Your task to perform on an android device: check battery use Image 0: 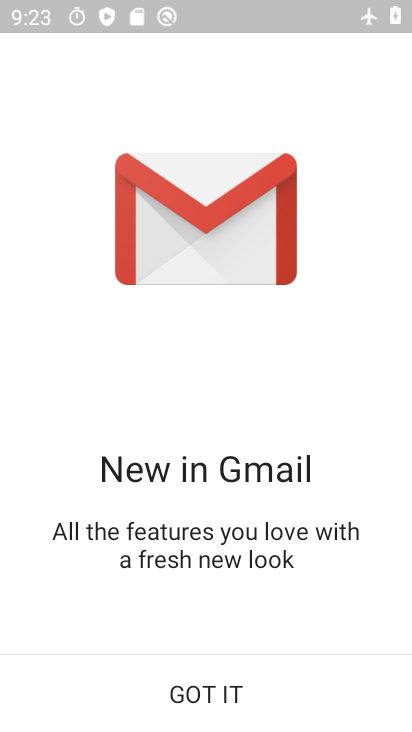
Step 0: press home button
Your task to perform on an android device: check battery use Image 1: 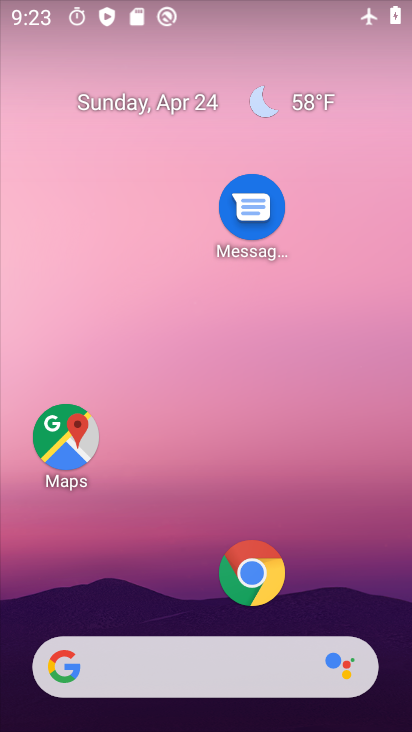
Step 1: drag from (155, 597) to (315, 10)
Your task to perform on an android device: check battery use Image 2: 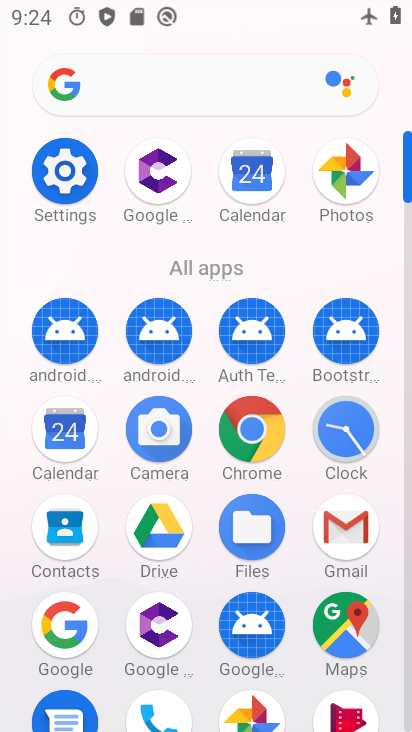
Step 2: click (64, 193)
Your task to perform on an android device: check battery use Image 3: 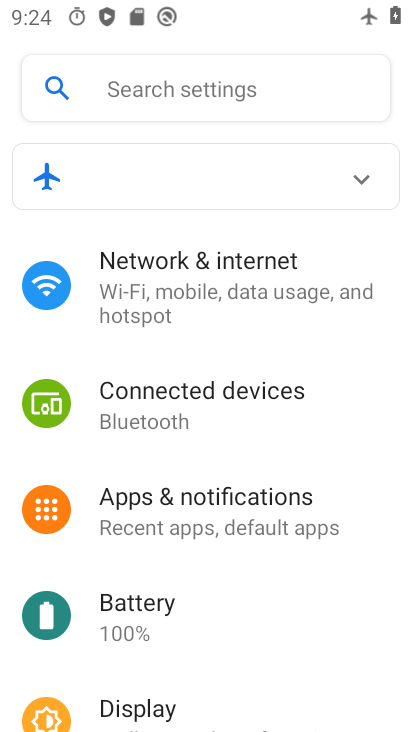
Step 3: click (161, 629)
Your task to perform on an android device: check battery use Image 4: 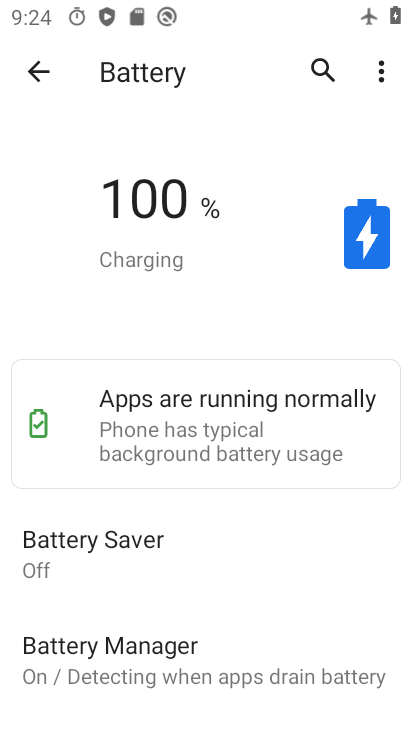
Step 4: click (387, 68)
Your task to perform on an android device: check battery use Image 5: 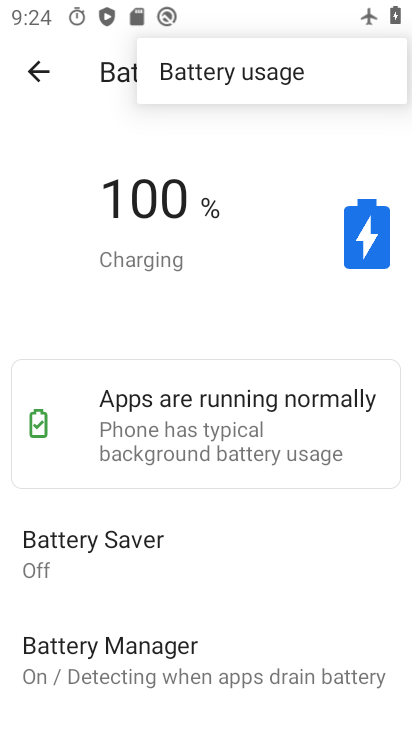
Step 5: click (263, 77)
Your task to perform on an android device: check battery use Image 6: 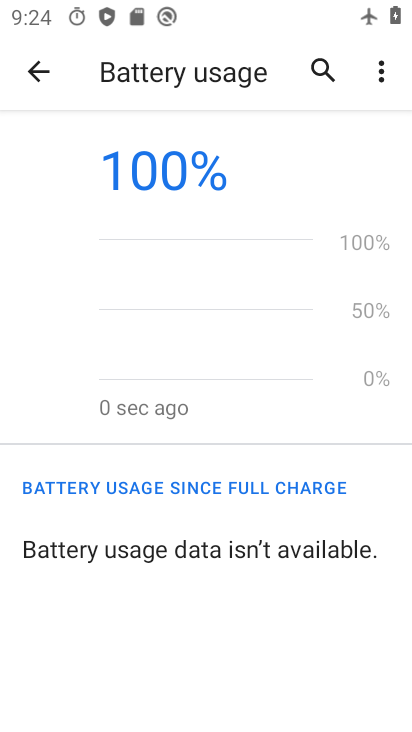
Step 6: task complete